Your task to perform on an android device: allow notifications from all sites in the chrome app Image 0: 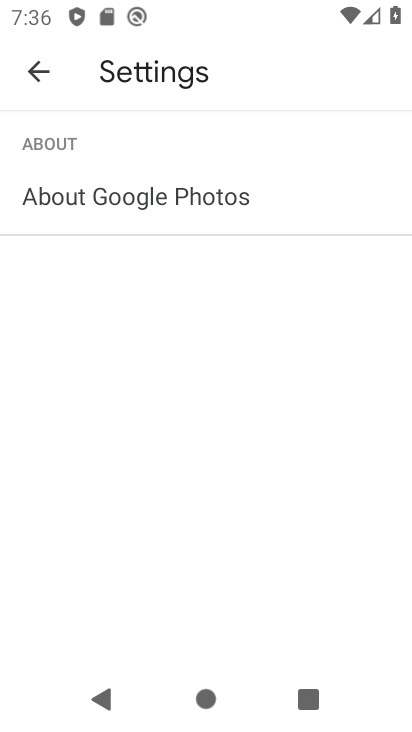
Step 0: press home button
Your task to perform on an android device: allow notifications from all sites in the chrome app Image 1: 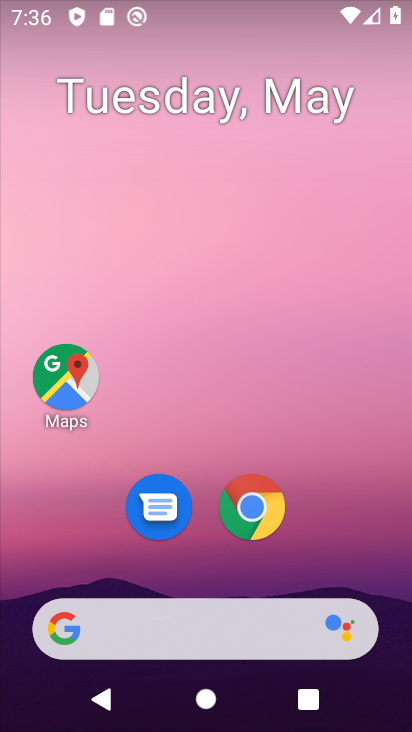
Step 1: drag from (308, 563) to (314, 139)
Your task to perform on an android device: allow notifications from all sites in the chrome app Image 2: 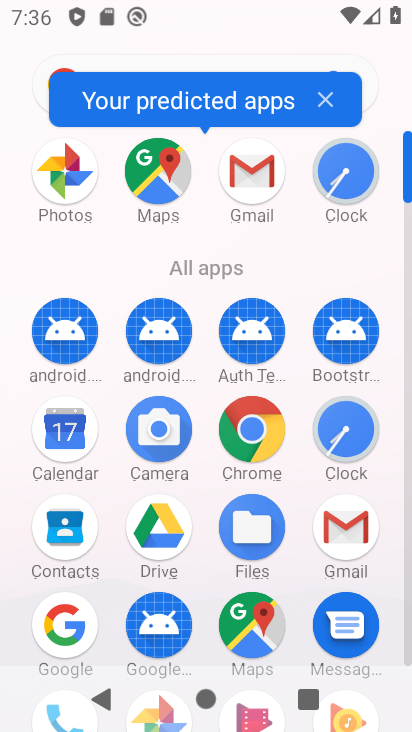
Step 2: drag from (221, 537) to (238, 263)
Your task to perform on an android device: allow notifications from all sites in the chrome app Image 3: 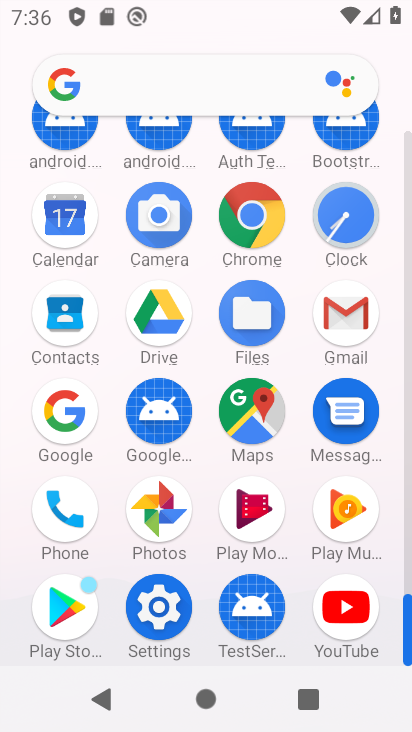
Step 3: click (159, 612)
Your task to perform on an android device: allow notifications from all sites in the chrome app Image 4: 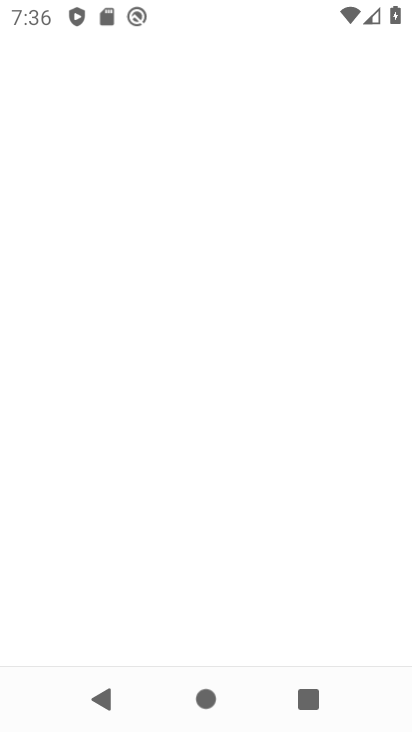
Step 4: press home button
Your task to perform on an android device: allow notifications from all sites in the chrome app Image 5: 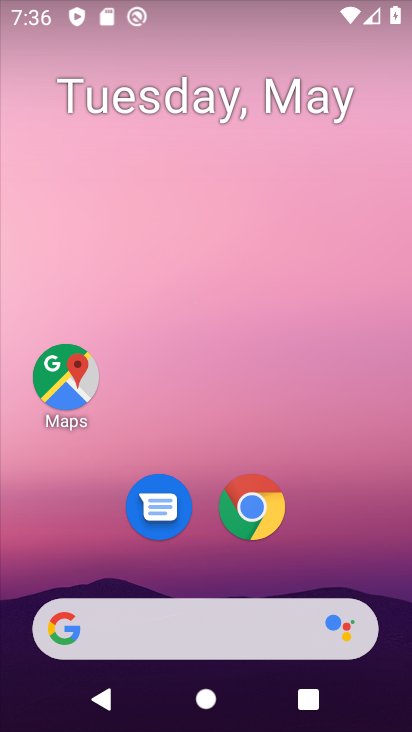
Step 5: click (233, 508)
Your task to perform on an android device: allow notifications from all sites in the chrome app Image 6: 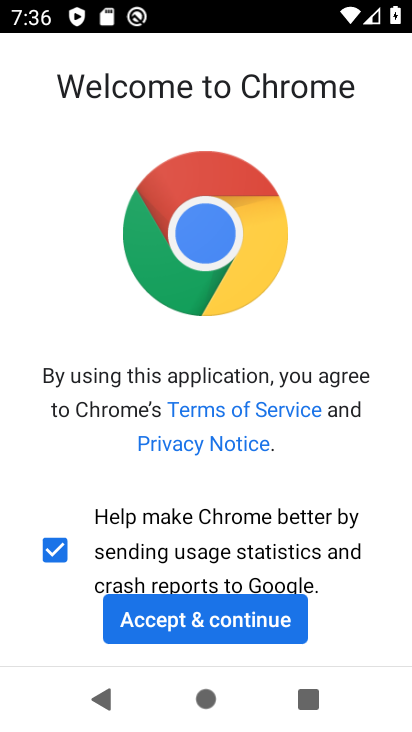
Step 6: click (253, 618)
Your task to perform on an android device: allow notifications from all sites in the chrome app Image 7: 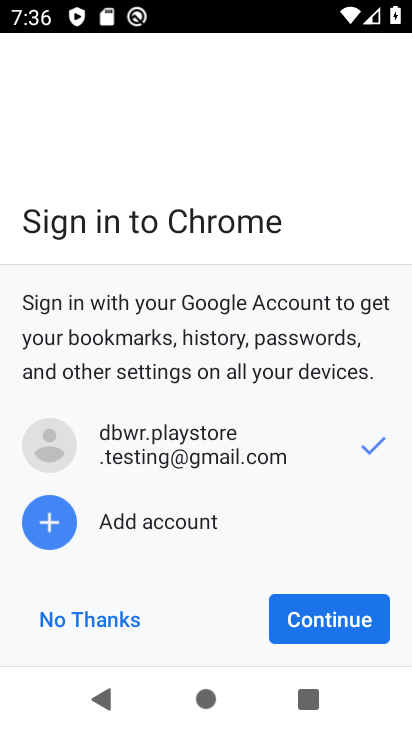
Step 7: click (293, 622)
Your task to perform on an android device: allow notifications from all sites in the chrome app Image 8: 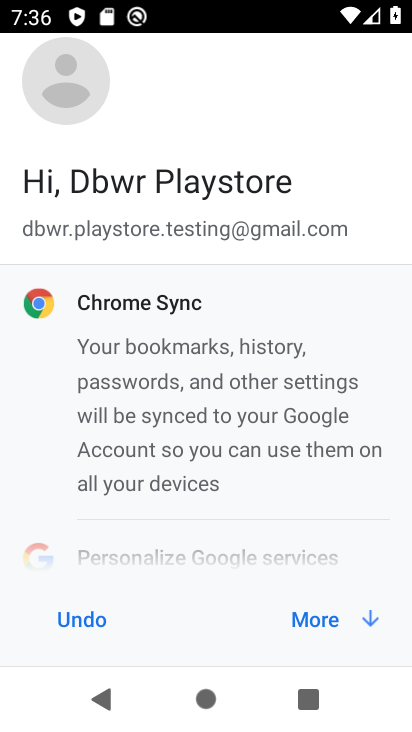
Step 8: click (294, 621)
Your task to perform on an android device: allow notifications from all sites in the chrome app Image 9: 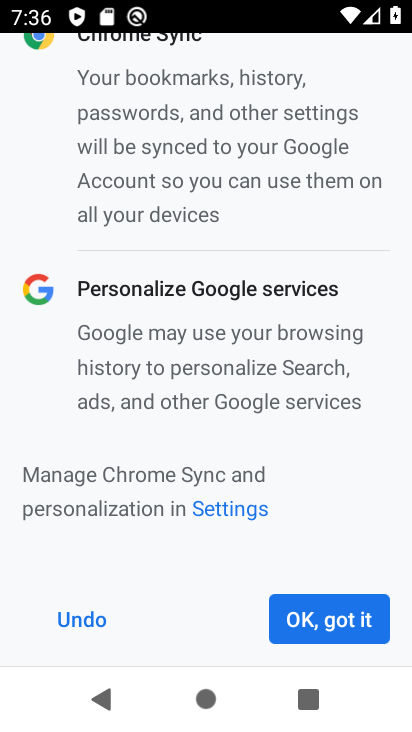
Step 9: click (294, 621)
Your task to perform on an android device: allow notifications from all sites in the chrome app Image 10: 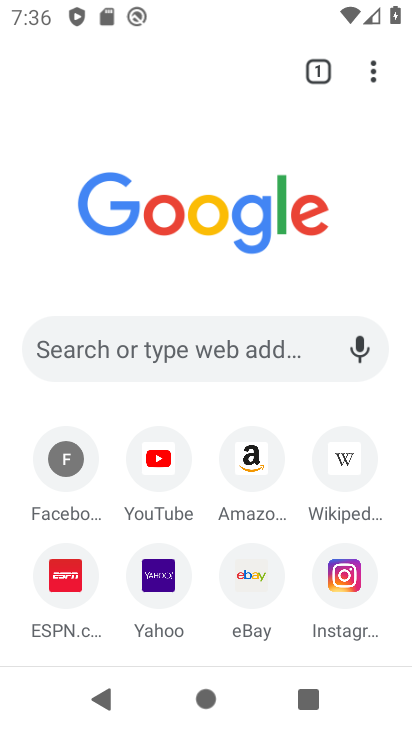
Step 10: click (380, 58)
Your task to perform on an android device: allow notifications from all sites in the chrome app Image 11: 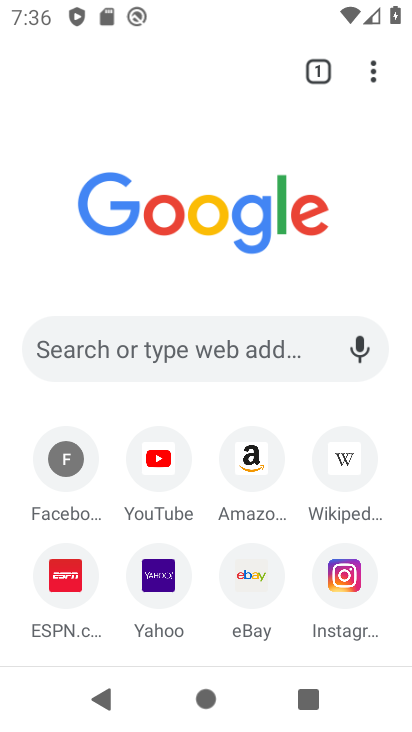
Step 11: click (375, 87)
Your task to perform on an android device: allow notifications from all sites in the chrome app Image 12: 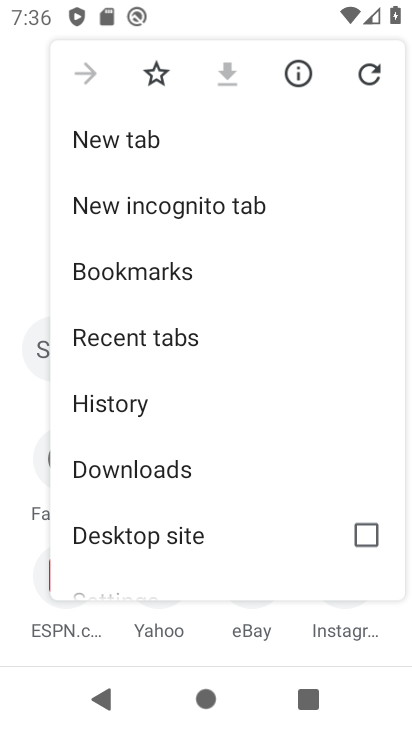
Step 12: drag from (179, 499) to (262, 250)
Your task to perform on an android device: allow notifications from all sites in the chrome app Image 13: 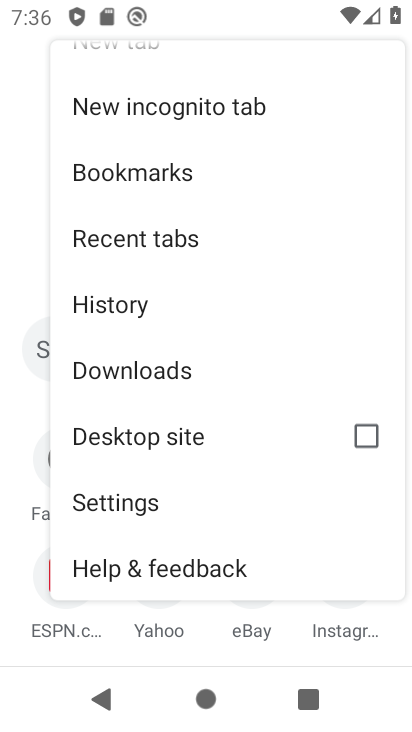
Step 13: click (127, 501)
Your task to perform on an android device: allow notifications from all sites in the chrome app Image 14: 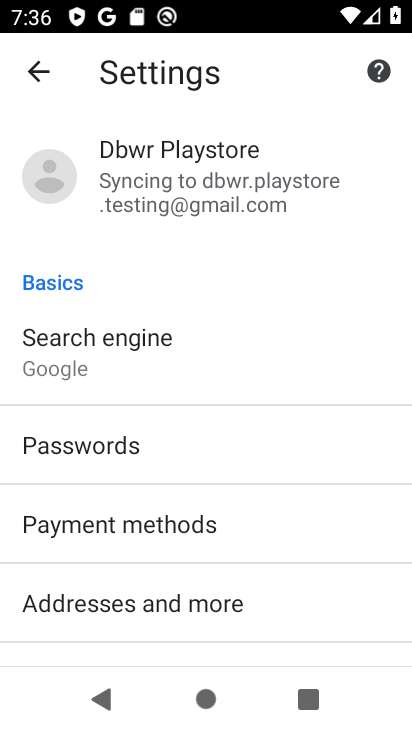
Step 14: drag from (180, 569) to (324, 184)
Your task to perform on an android device: allow notifications from all sites in the chrome app Image 15: 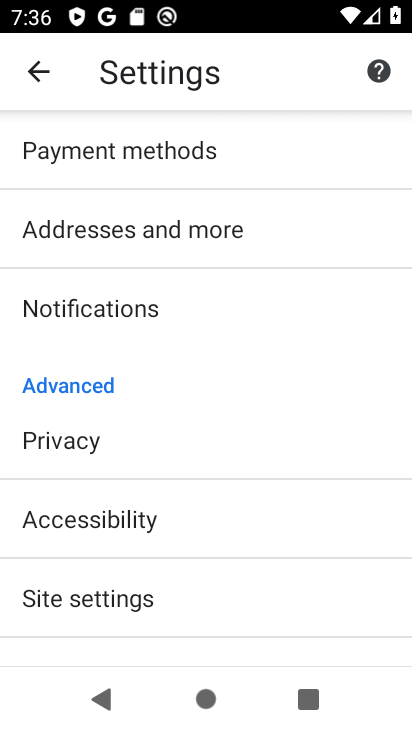
Step 15: click (172, 593)
Your task to perform on an android device: allow notifications from all sites in the chrome app Image 16: 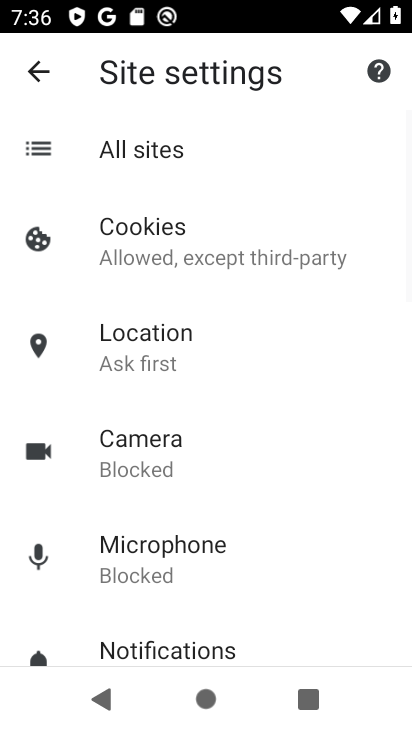
Step 16: click (152, 214)
Your task to perform on an android device: allow notifications from all sites in the chrome app Image 17: 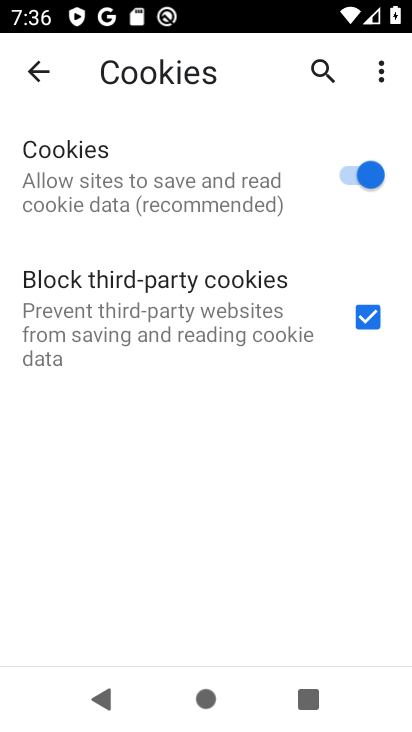
Step 17: click (19, 76)
Your task to perform on an android device: allow notifications from all sites in the chrome app Image 18: 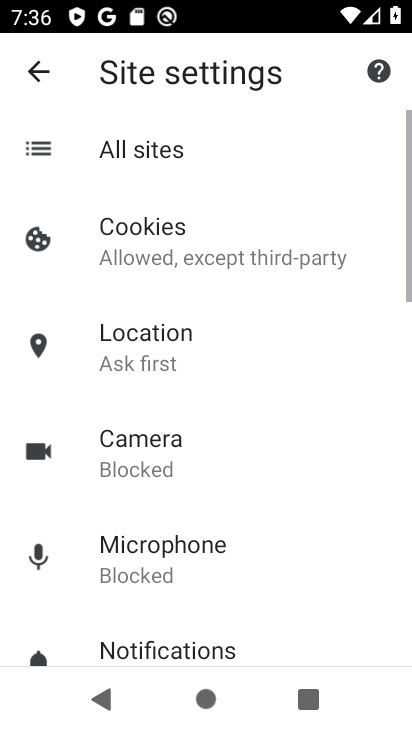
Step 18: click (280, 374)
Your task to perform on an android device: allow notifications from all sites in the chrome app Image 19: 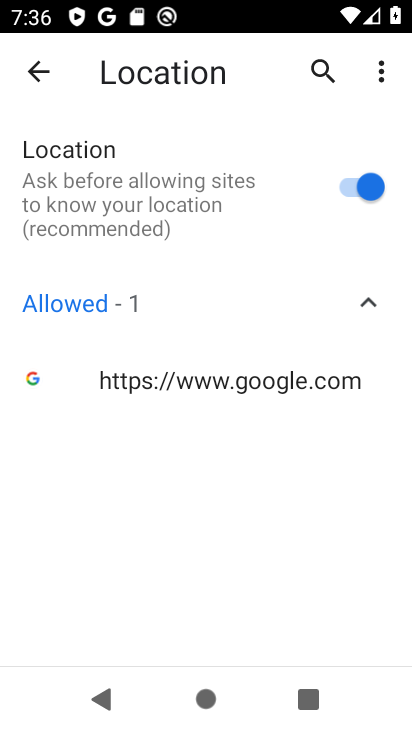
Step 19: click (48, 92)
Your task to perform on an android device: allow notifications from all sites in the chrome app Image 20: 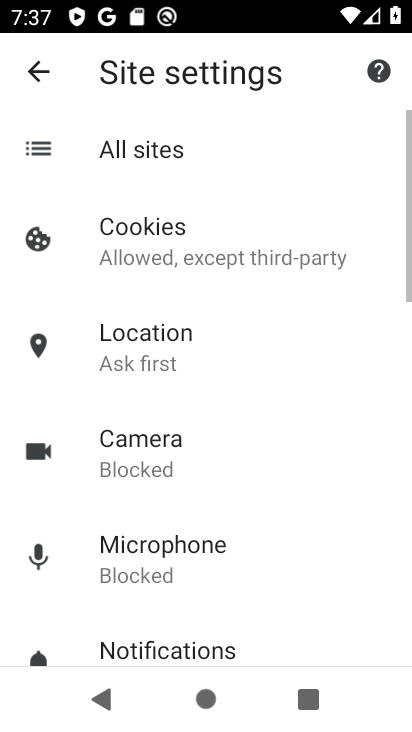
Step 20: click (164, 365)
Your task to perform on an android device: allow notifications from all sites in the chrome app Image 21: 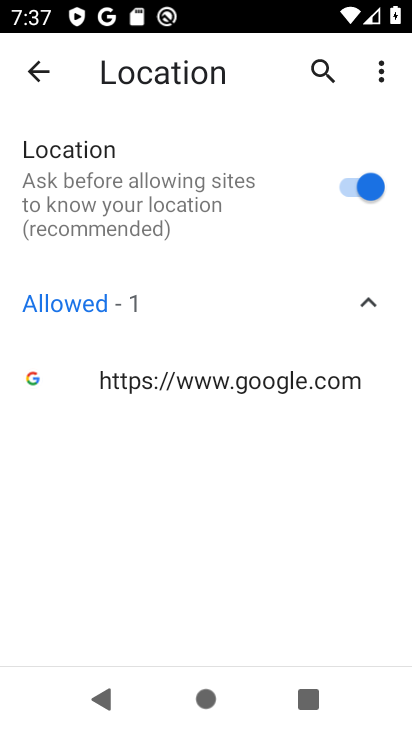
Step 21: click (64, 69)
Your task to perform on an android device: allow notifications from all sites in the chrome app Image 22: 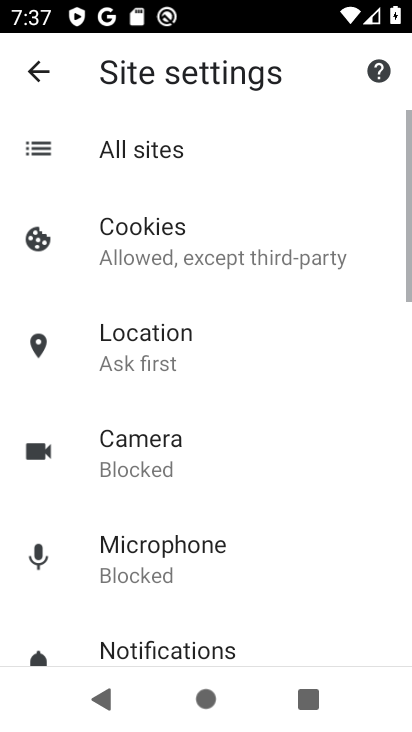
Step 22: click (137, 494)
Your task to perform on an android device: allow notifications from all sites in the chrome app Image 23: 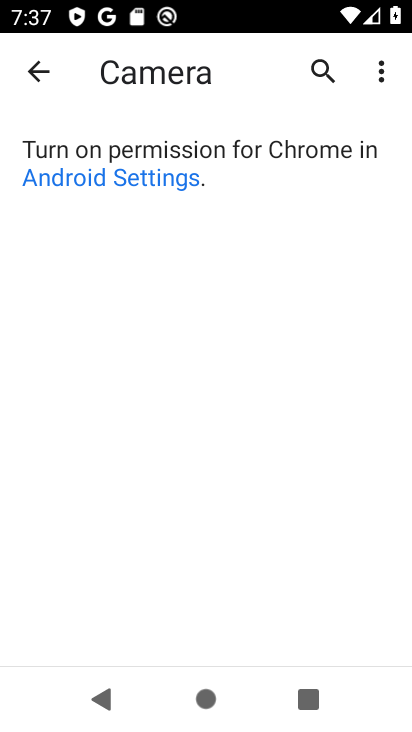
Step 23: click (37, 87)
Your task to perform on an android device: allow notifications from all sites in the chrome app Image 24: 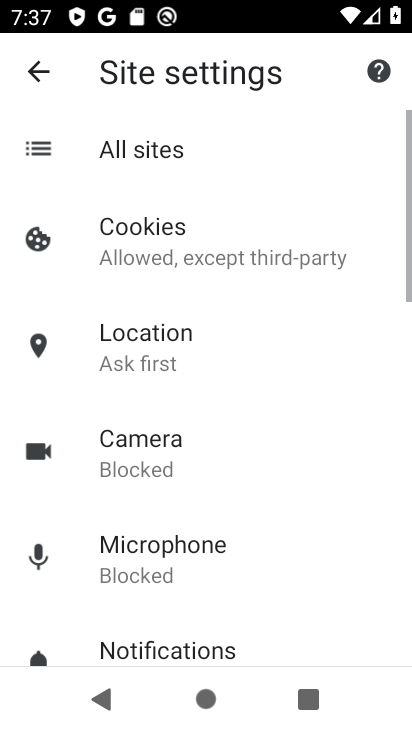
Step 24: task complete